Your task to perform on an android device: Open the web browser Image 0: 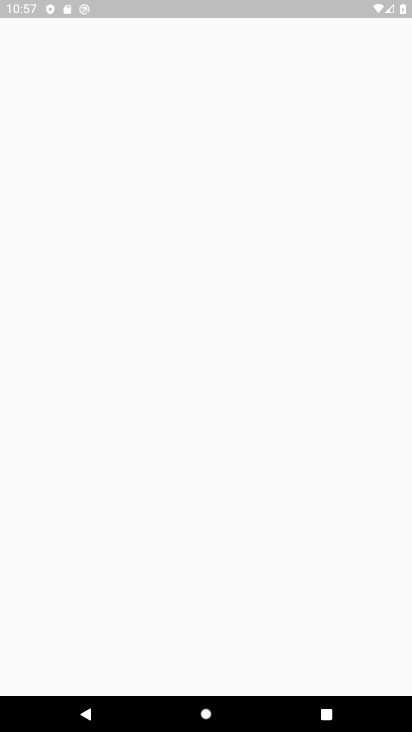
Step 0: press back button
Your task to perform on an android device: Open the web browser Image 1: 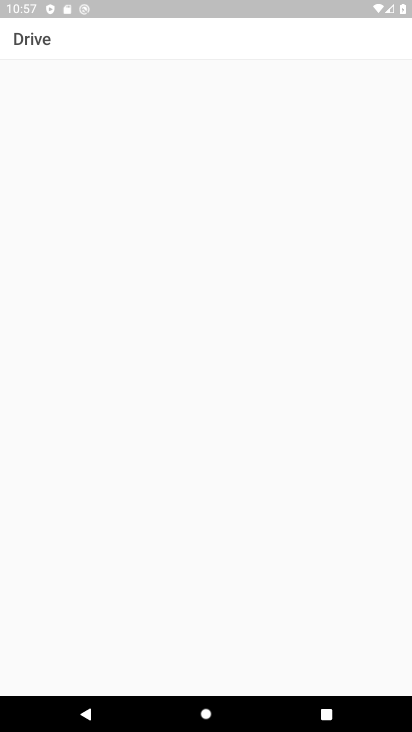
Step 1: press back button
Your task to perform on an android device: Open the web browser Image 2: 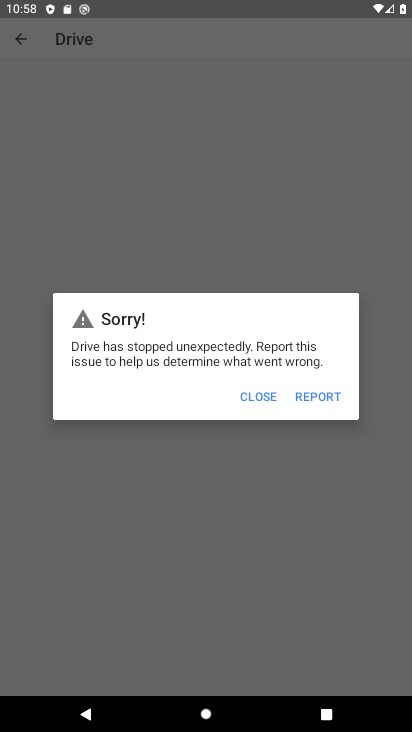
Step 2: click (245, 394)
Your task to perform on an android device: Open the web browser Image 3: 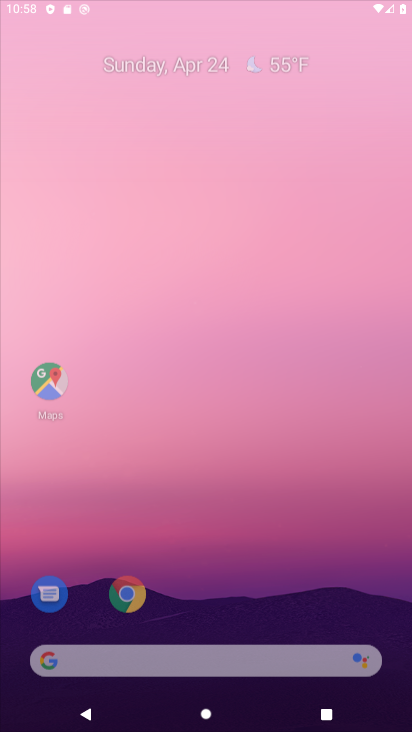
Step 3: press back button
Your task to perform on an android device: Open the web browser Image 4: 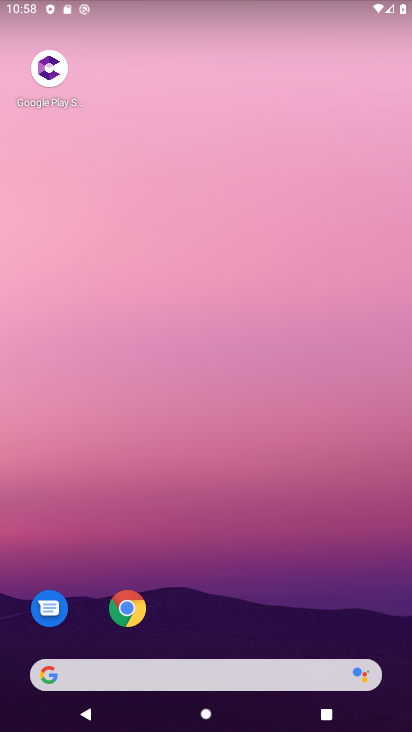
Step 4: click (118, 608)
Your task to perform on an android device: Open the web browser Image 5: 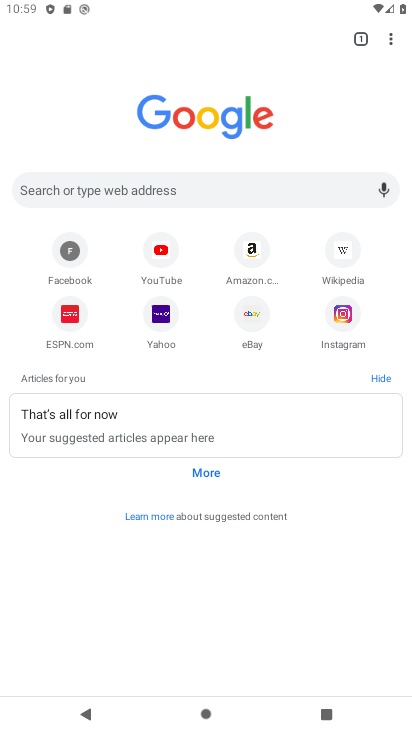
Step 5: task complete